Your task to perform on an android device: Go to display settings Image 0: 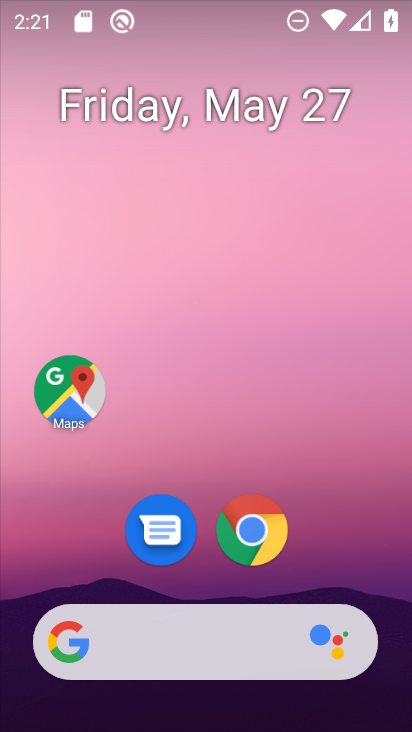
Step 0: drag from (146, 722) to (220, 64)
Your task to perform on an android device: Go to display settings Image 1: 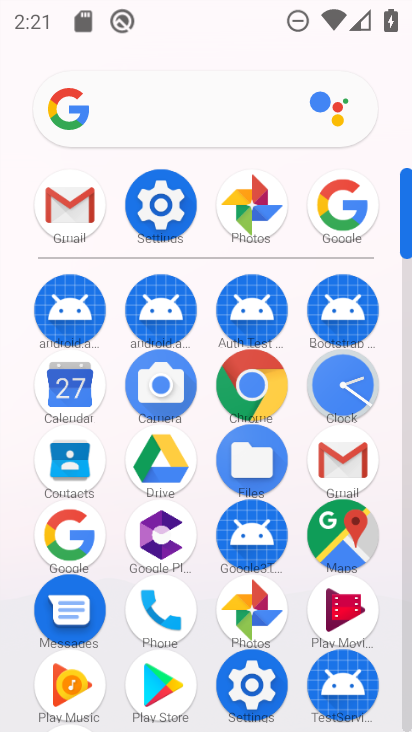
Step 1: click (166, 223)
Your task to perform on an android device: Go to display settings Image 2: 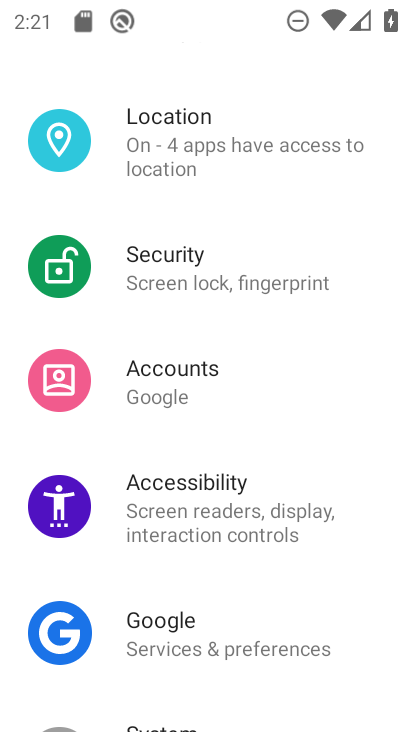
Step 2: drag from (262, 181) to (271, 573)
Your task to perform on an android device: Go to display settings Image 3: 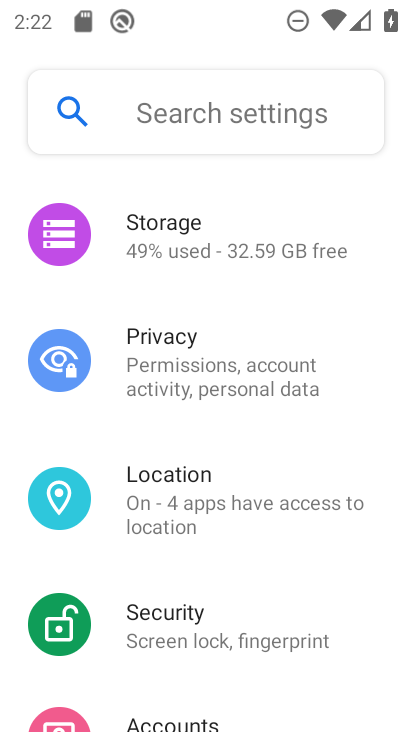
Step 3: drag from (266, 210) to (224, 659)
Your task to perform on an android device: Go to display settings Image 4: 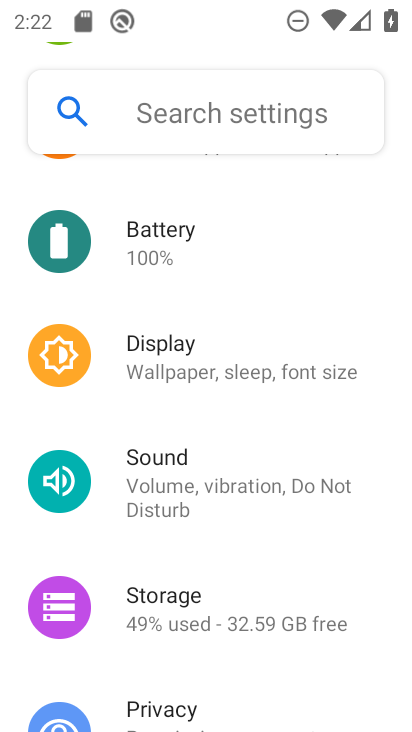
Step 4: click (193, 374)
Your task to perform on an android device: Go to display settings Image 5: 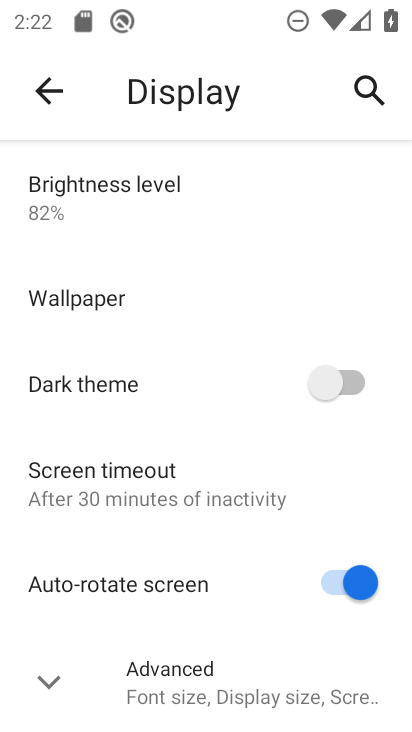
Step 5: task complete